Your task to perform on an android device: add a contact Image 0: 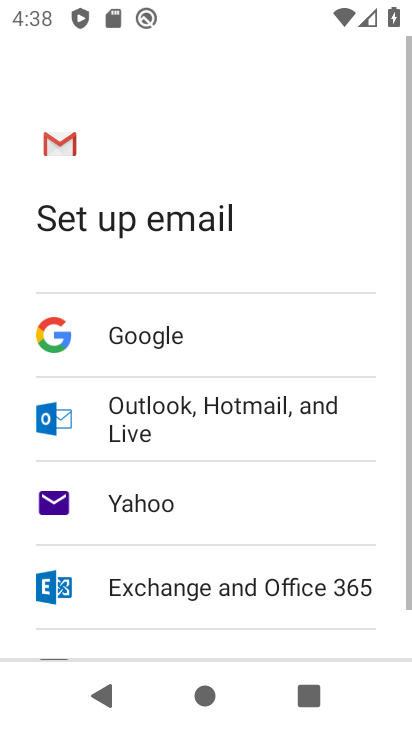
Step 0: press home button
Your task to perform on an android device: add a contact Image 1: 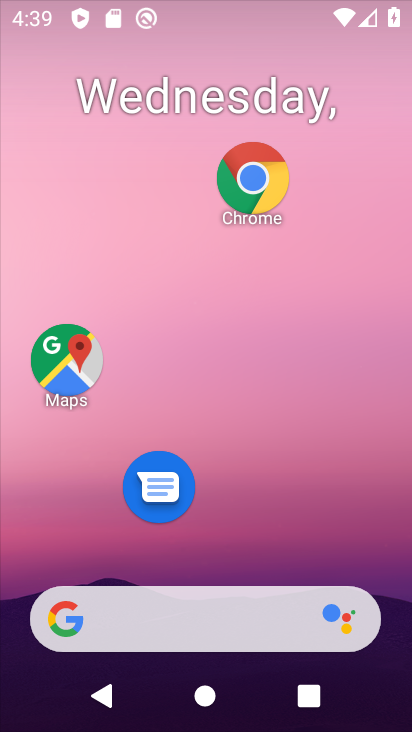
Step 1: drag from (281, 533) to (248, 188)
Your task to perform on an android device: add a contact Image 2: 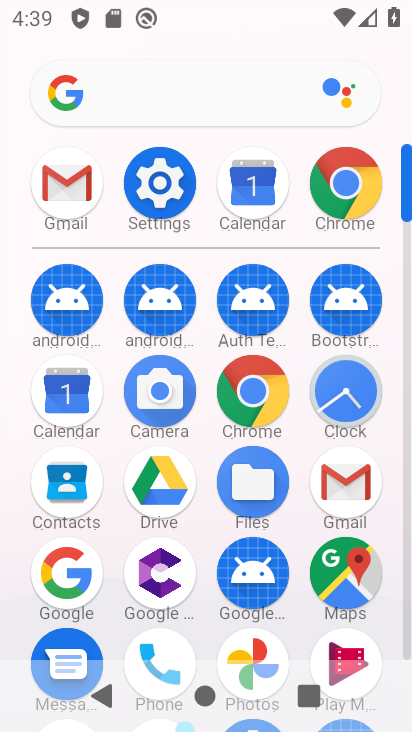
Step 2: click (75, 480)
Your task to perform on an android device: add a contact Image 3: 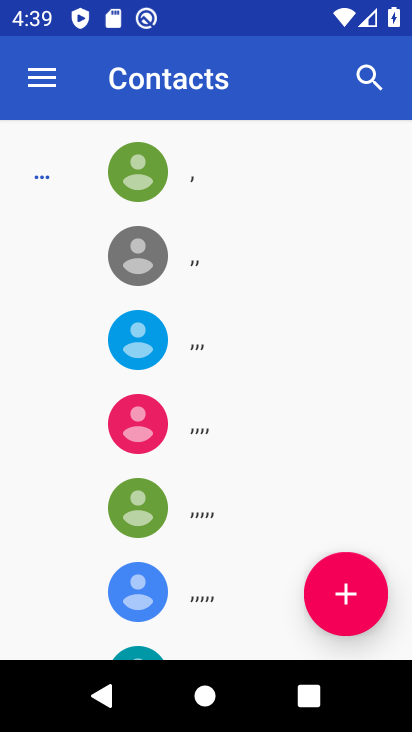
Step 3: click (338, 588)
Your task to perform on an android device: add a contact Image 4: 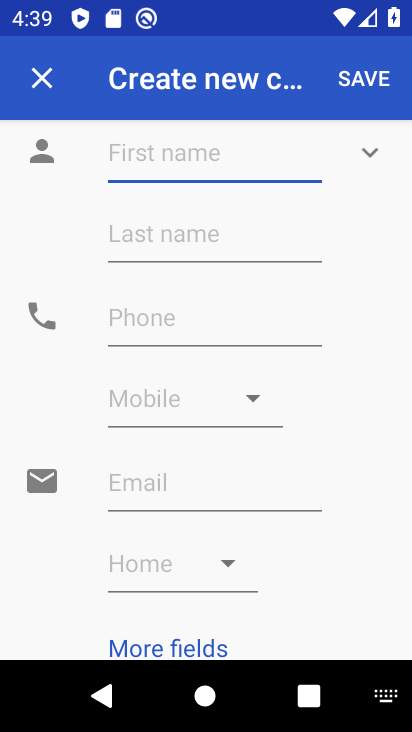
Step 4: type "contact"
Your task to perform on an android device: add a contact Image 5: 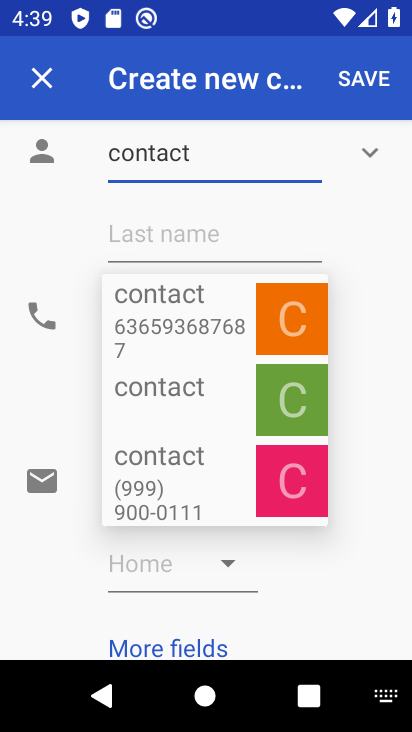
Step 5: type "n"
Your task to perform on an android device: add a contact Image 6: 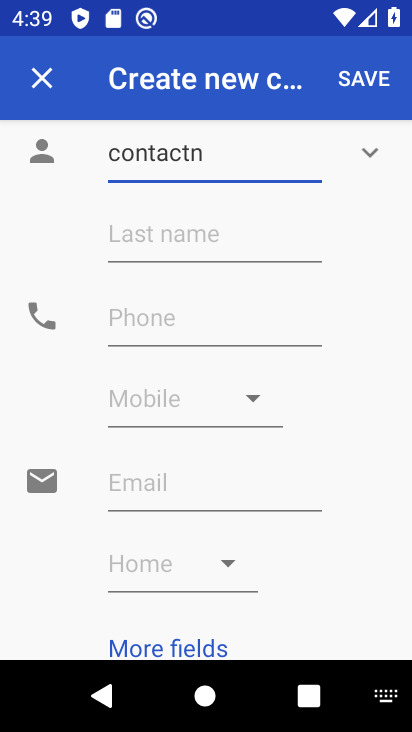
Step 6: click (368, 68)
Your task to perform on an android device: add a contact Image 7: 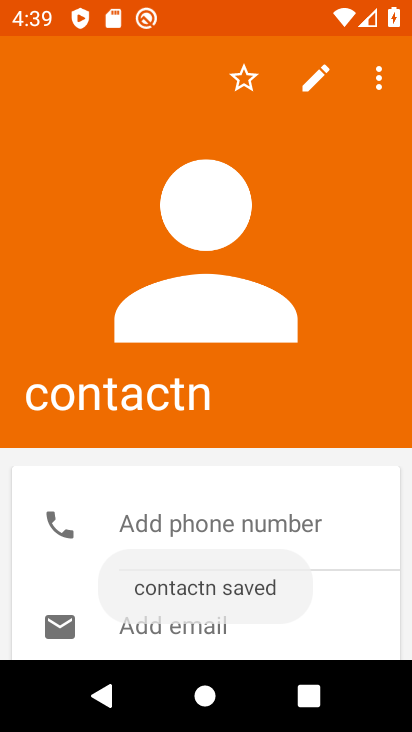
Step 7: task complete